Your task to perform on an android device: What's on my calendar today? Image 0: 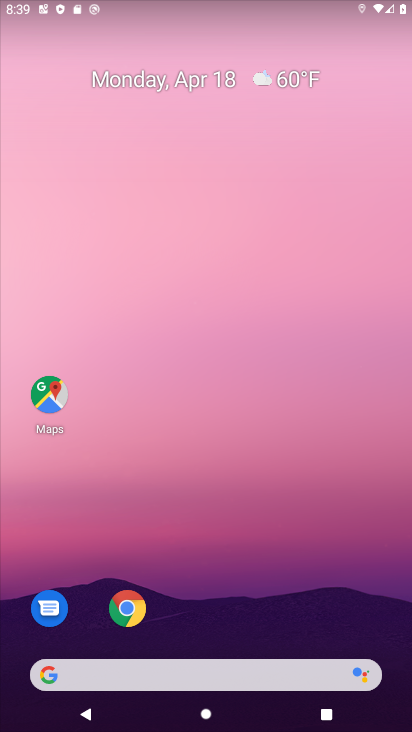
Step 0: click (254, 161)
Your task to perform on an android device: What's on my calendar today? Image 1: 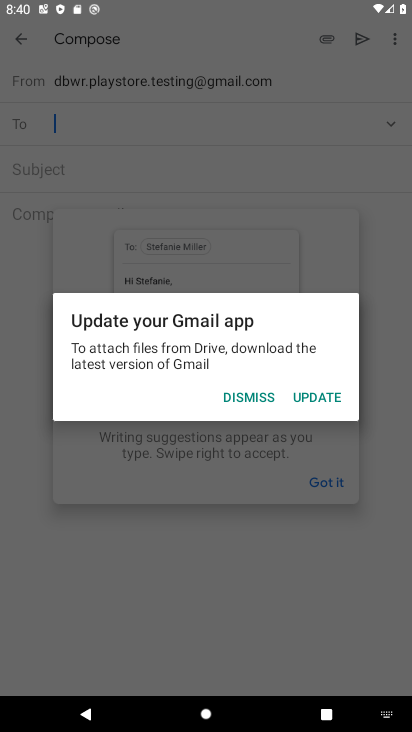
Step 1: press home button
Your task to perform on an android device: What's on my calendar today? Image 2: 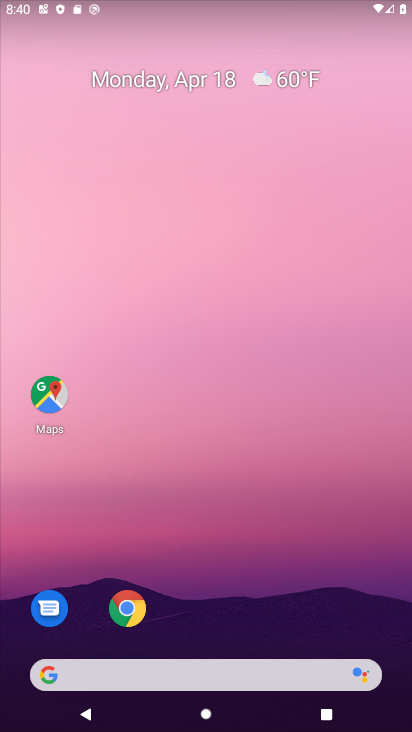
Step 2: drag from (214, 596) to (276, 182)
Your task to perform on an android device: What's on my calendar today? Image 3: 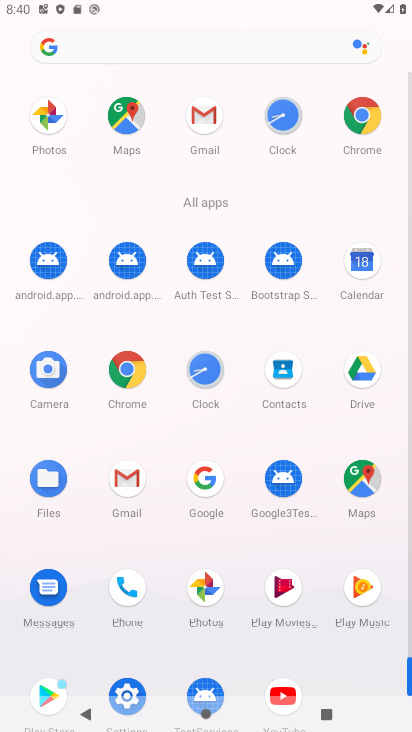
Step 3: click (366, 263)
Your task to perform on an android device: What's on my calendar today? Image 4: 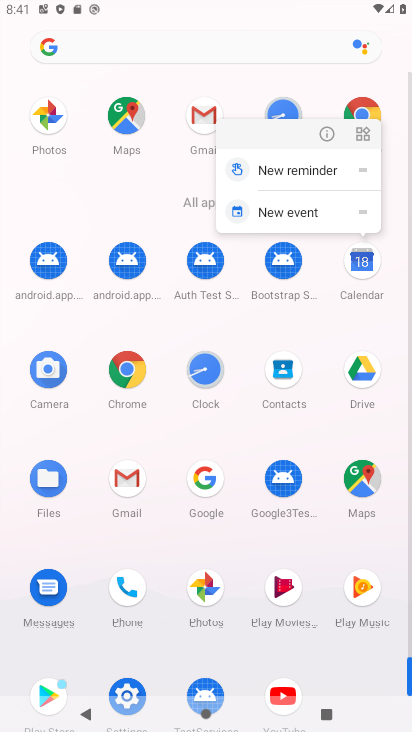
Step 4: click (330, 132)
Your task to perform on an android device: What's on my calendar today? Image 5: 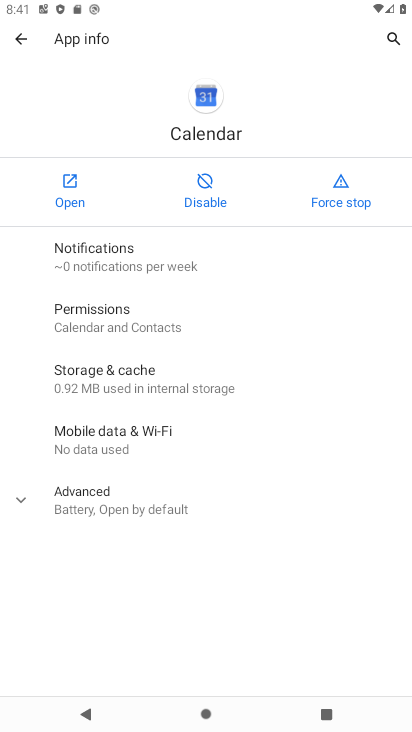
Step 5: click (67, 204)
Your task to perform on an android device: What's on my calendar today? Image 6: 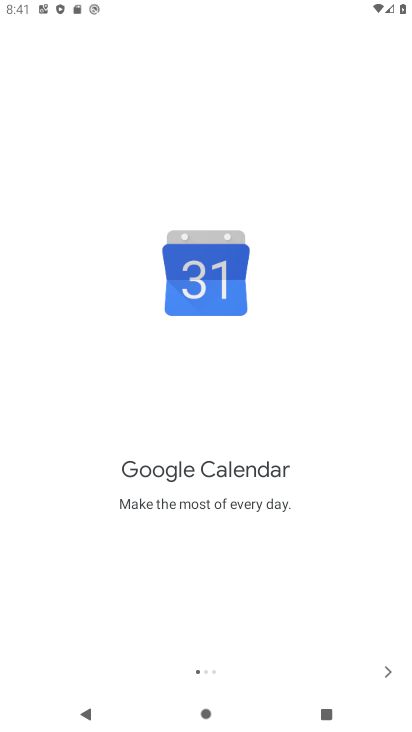
Step 6: click (383, 665)
Your task to perform on an android device: What's on my calendar today? Image 7: 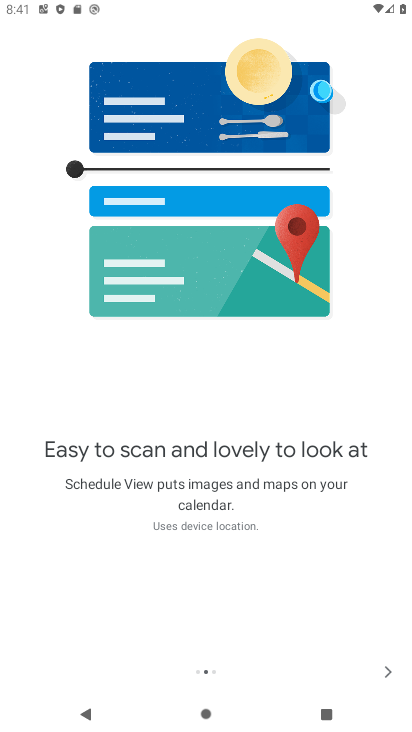
Step 7: click (389, 662)
Your task to perform on an android device: What's on my calendar today? Image 8: 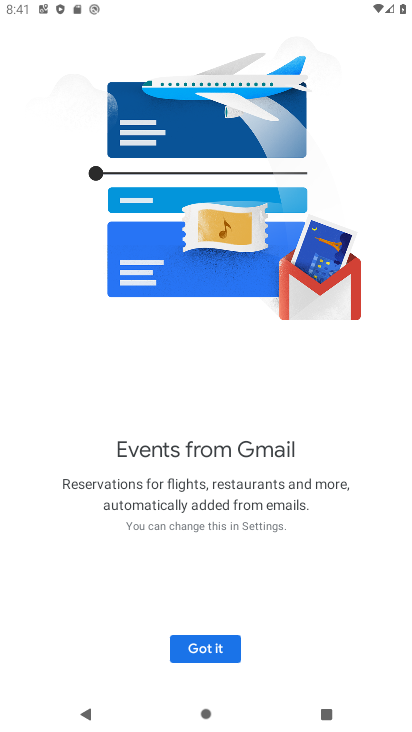
Step 8: click (198, 645)
Your task to perform on an android device: What's on my calendar today? Image 9: 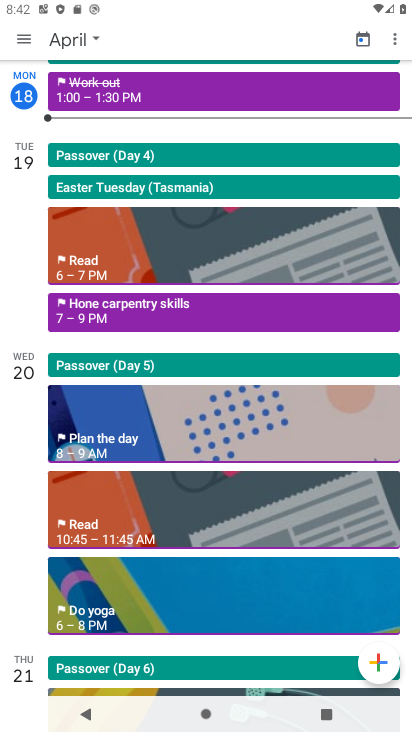
Step 9: drag from (190, 636) to (273, 247)
Your task to perform on an android device: What's on my calendar today? Image 10: 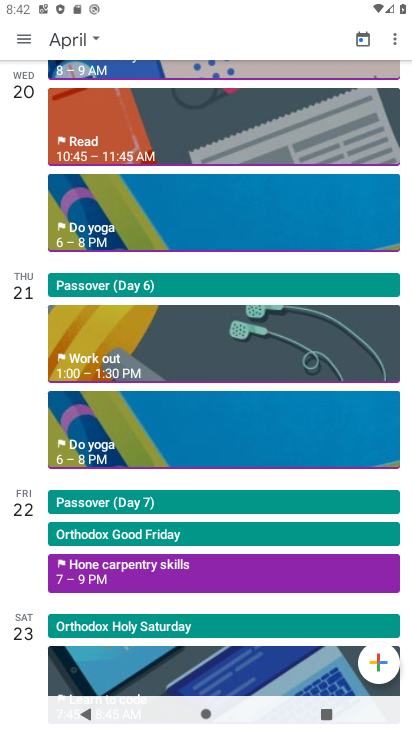
Step 10: click (58, 31)
Your task to perform on an android device: What's on my calendar today? Image 11: 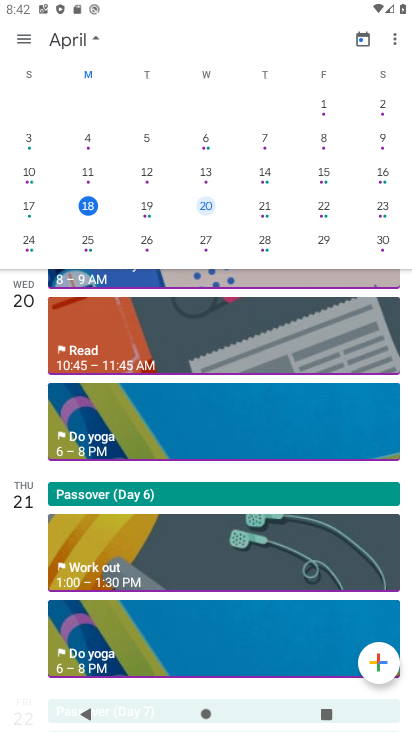
Step 11: click (78, 201)
Your task to perform on an android device: What's on my calendar today? Image 12: 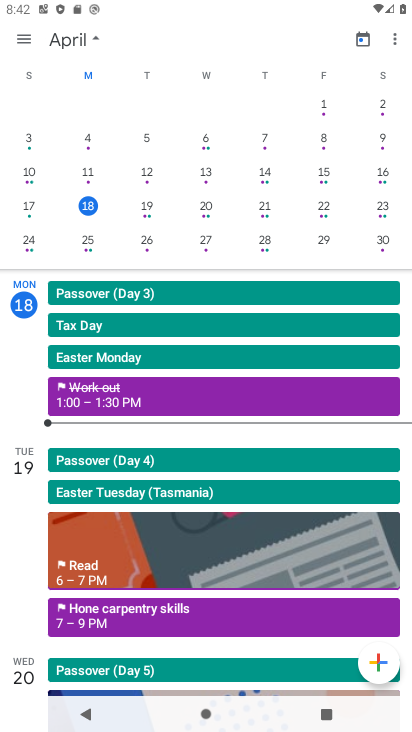
Step 12: task complete